Your task to perform on an android device: open app "Grab" Image 0: 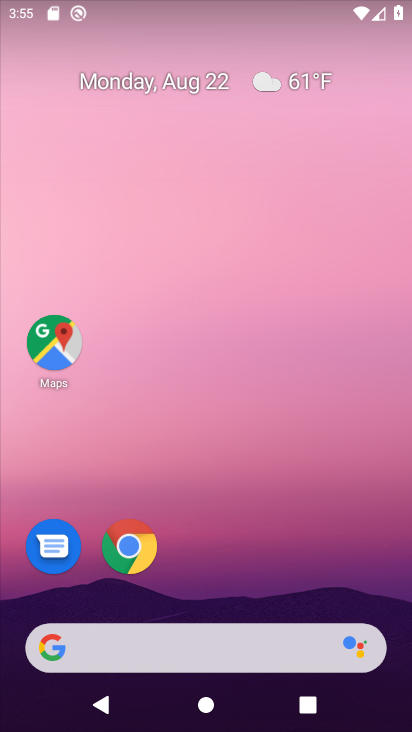
Step 0: drag from (389, 600) to (338, 79)
Your task to perform on an android device: open app "Grab" Image 1: 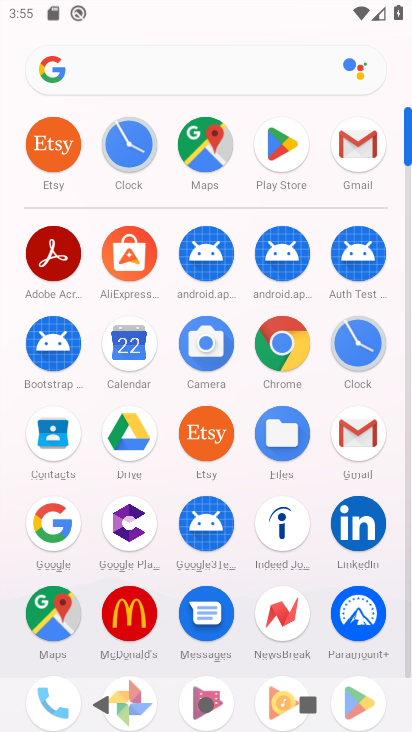
Step 1: drag from (244, 586) to (246, 358)
Your task to perform on an android device: open app "Grab" Image 2: 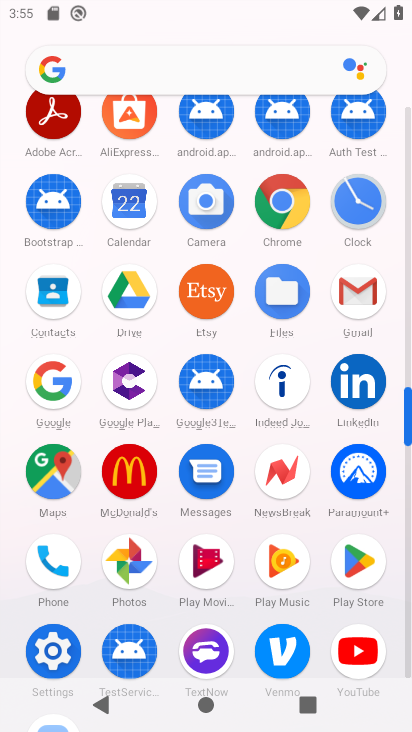
Step 2: click (361, 562)
Your task to perform on an android device: open app "Grab" Image 3: 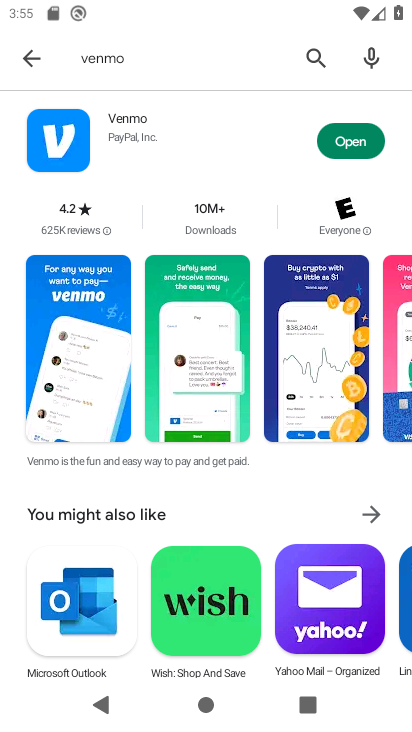
Step 3: click (307, 50)
Your task to perform on an android device: open app "Grab" Image 4: 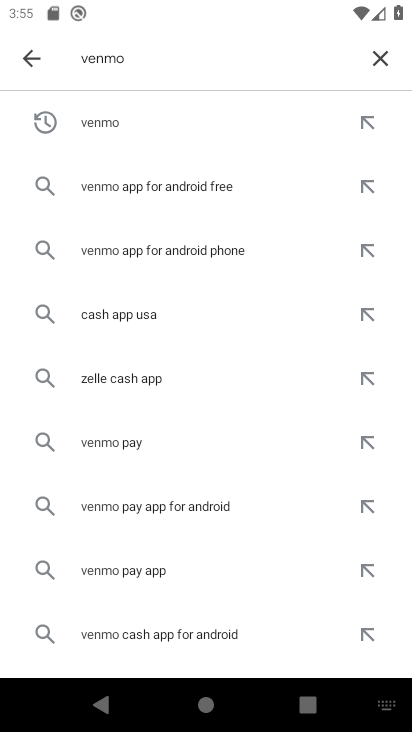
Step 4: click (378, 56)
Your task to perform on an android device: open app "Grab" Image 5: 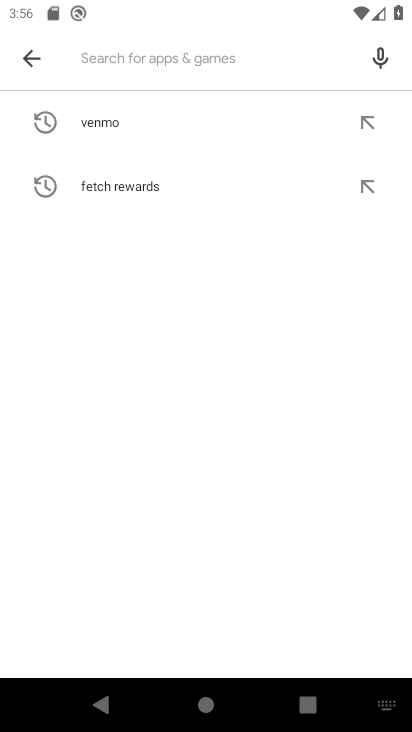
Step 5: type "Grab"
Your task to perform on an android device: open app "Grab" Image 6: 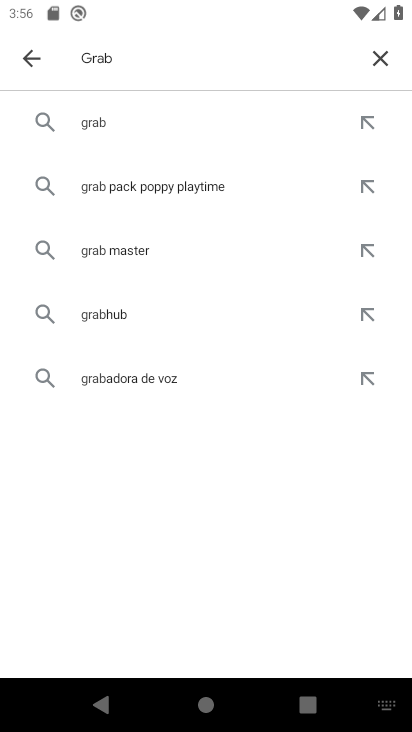
Step 6: click (81, 117)
Your task to perform on an android device: open app "Grab" Image 7: 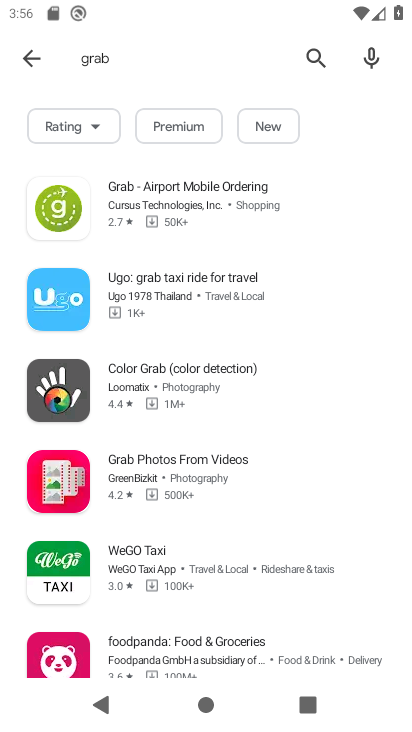
Step 7: click (137, 185)
Your task to perform on an android device: open app "Grab" Image 8: 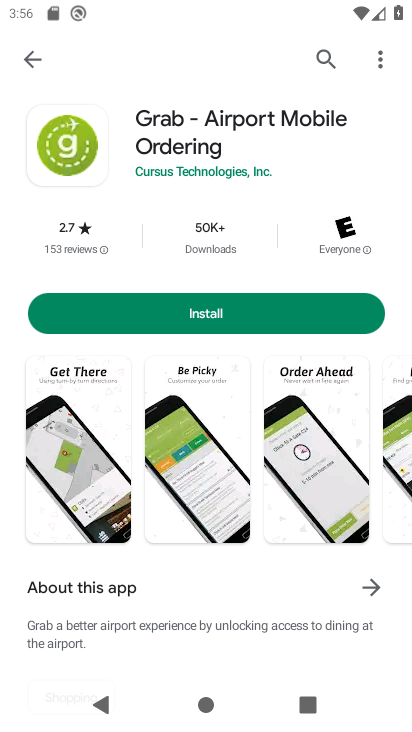
Step 8: task complete